Your task to perform on an android device: Open internet settings Image 0: 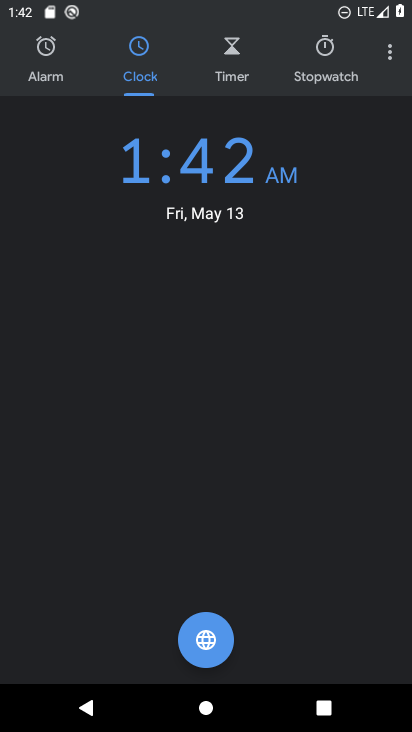
Step 0: press home button
Your task to perform on an android device: Open internet settings Image 1: 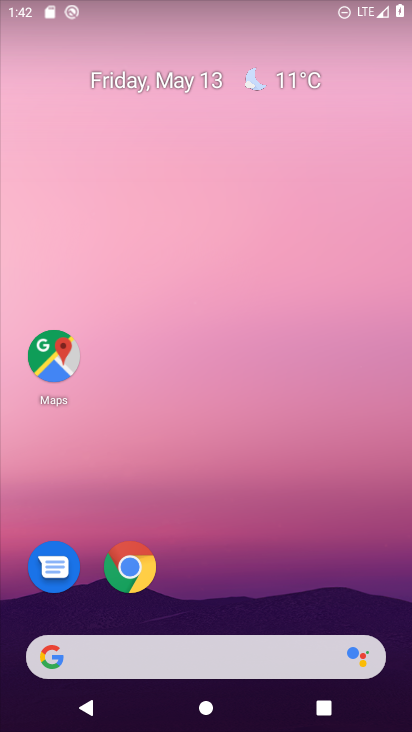
Step 1: drag from (216, 600) to (239, 19)
Your task to perform on an android device: Open internet settings Image 2: 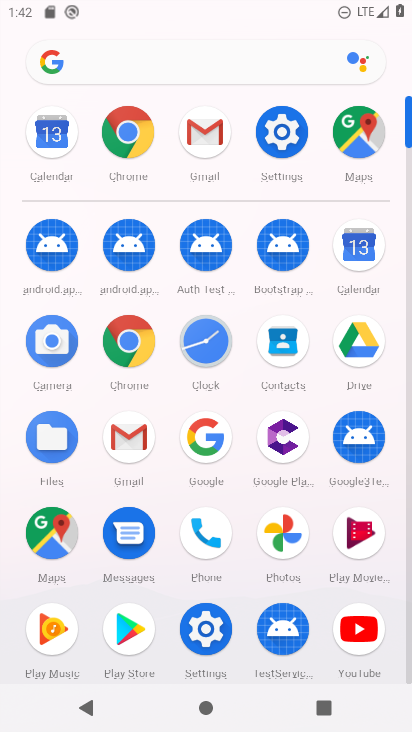
Step 2: click (273, 119)
Your task to perform on an android device: Open internet settings Image 3: 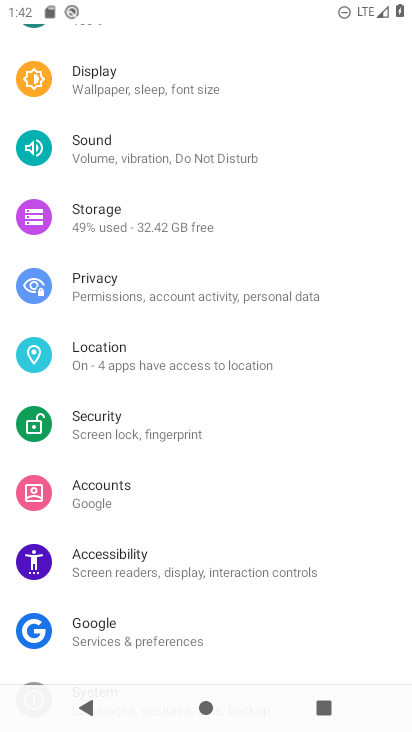
Step 3: drag from (130, 128) to (139, 694)
Your task to perform on an android device: Open internet settings Image 4: 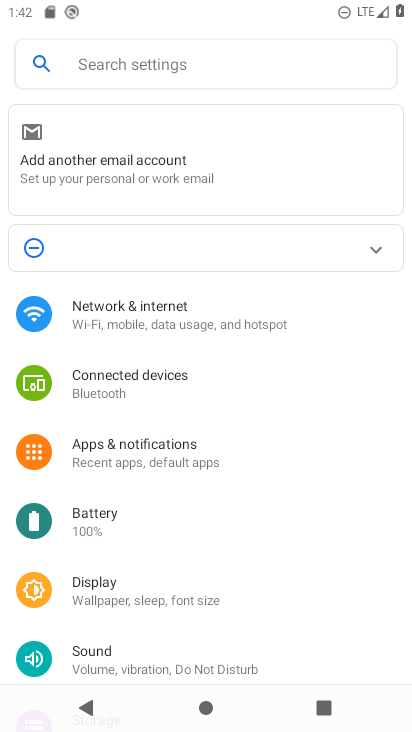
Step 4: click (115, 297)
Your task to perform on an android device: Open internet settings Image 5: 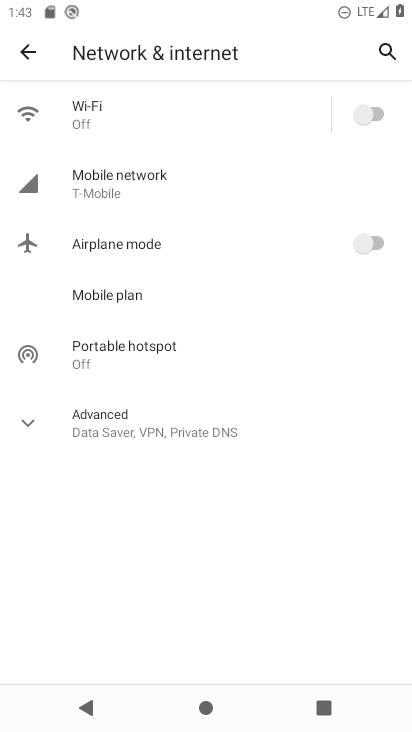
Step 5: click (25, 418)
Your task to perform on an android device: Open internet settings Image 6: 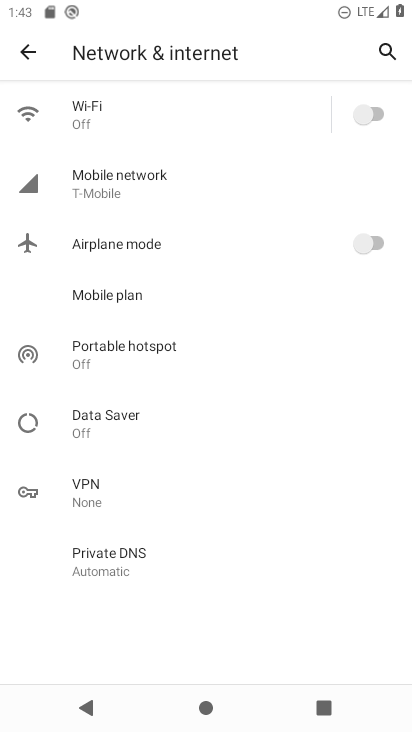
Step 6: task complete